Your task to perform on an android device: turn off notifications in google photos Image 0: 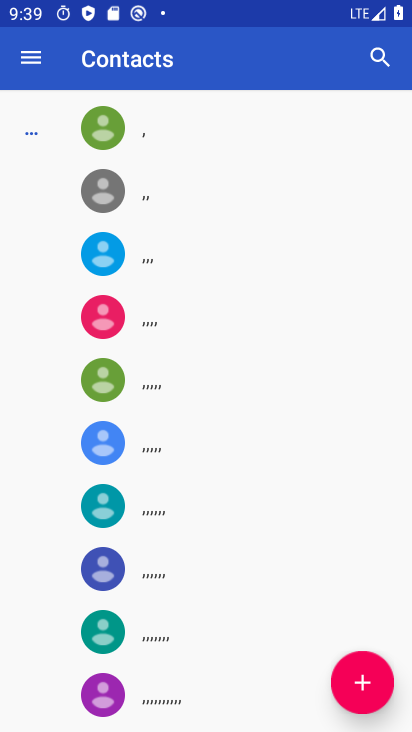
Step 0: press home button
Your task to perform on an android device: turn off notifications in google photos Image 1: 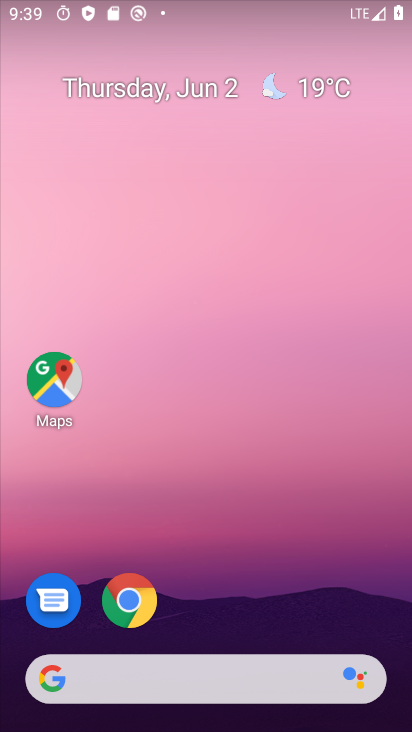
Step 1: drag from (201, 611) to (190, 236)
Your task to perform on an android device: turn off notifications in google photos Image 2: 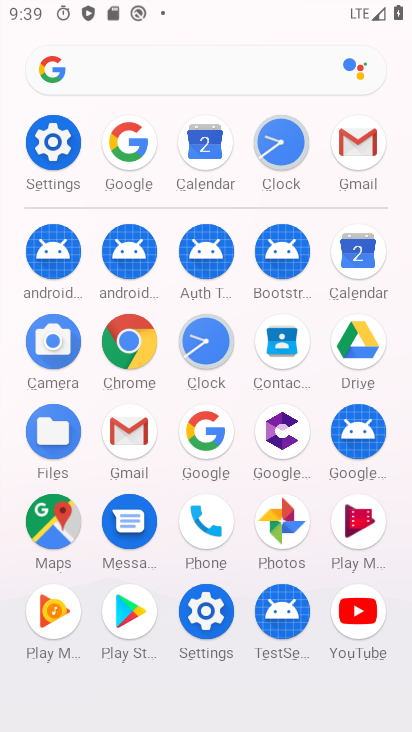
Step 2: click (294, 520)
Your task to perform on an android device: turn off notifications in google photos Image 3: 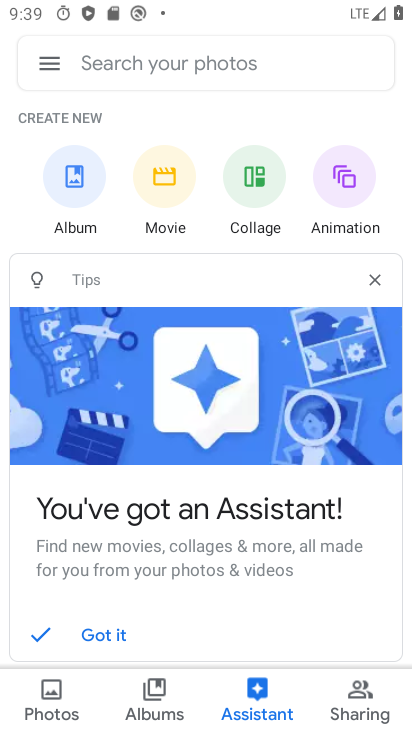
Step 3: click (40, 70)
Your task to perform on an android device: turn off notifications in google photos Image 4: 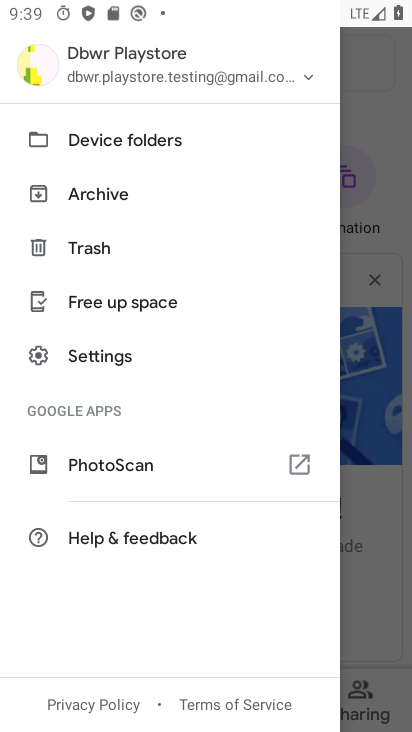
Step 4: click (107, 359)
Your task to perform on an android device: turn off notifications in google photos Image 5: 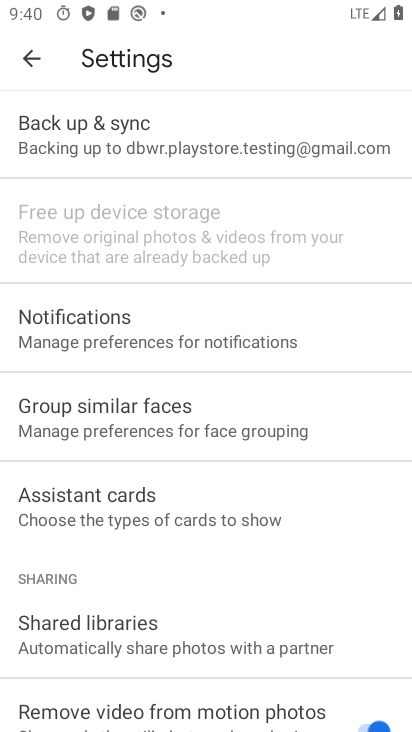
Step 5: drag from (239, 600) to (251, 494)
Your task to perform on an android device: turn off notifications in google photos Image 6: 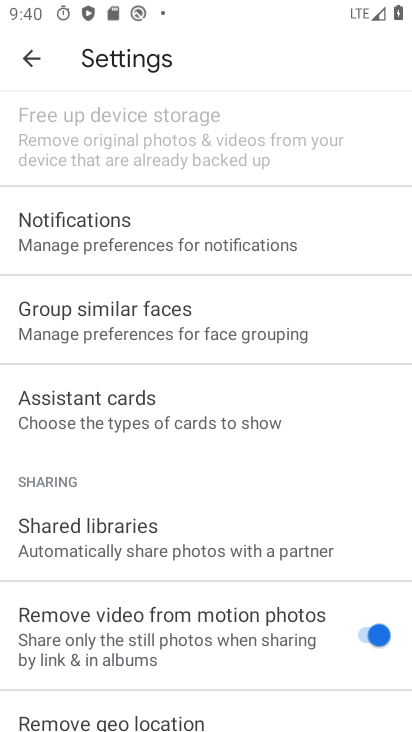
Step 6: click (204, 254)
Your task to perform on an android device: turn off notifications in google photos Image 7: 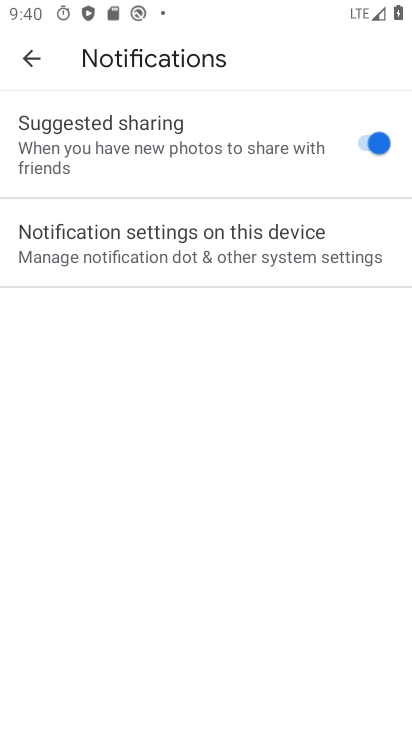
Step 7: click (272, 253)
Your task to perform on an android device: turn off notifications in google photos Image 8: 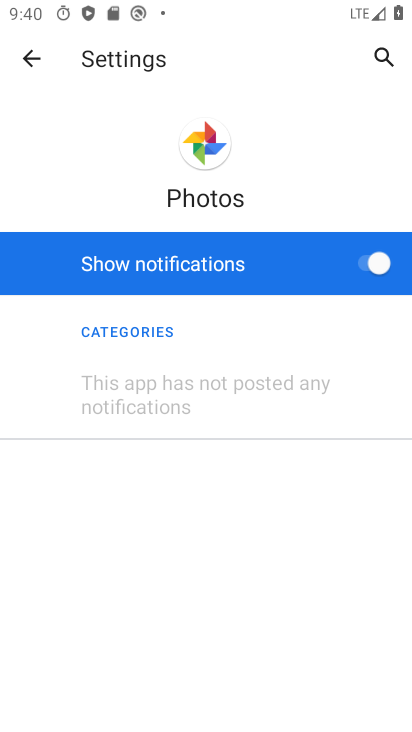
Step 8: click (371, 263)
Your task to perform on an android device: turn off notifications in google photos Image 9: 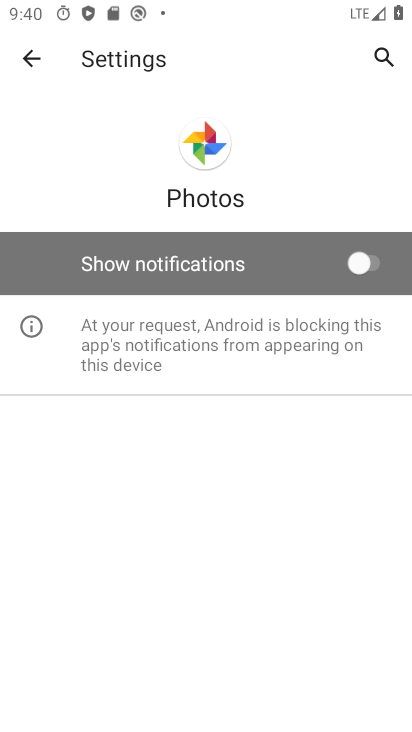
Step 9: task complete